Your task to perform on an android device: change text size in settings app Image 0: 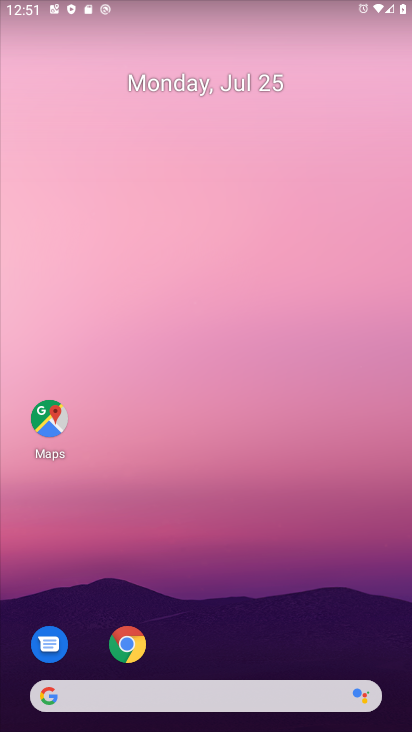
Step 0: drag from (386, 628) to (218, 122)
Your task to perform on an android device: change text size in settings app Image 1: 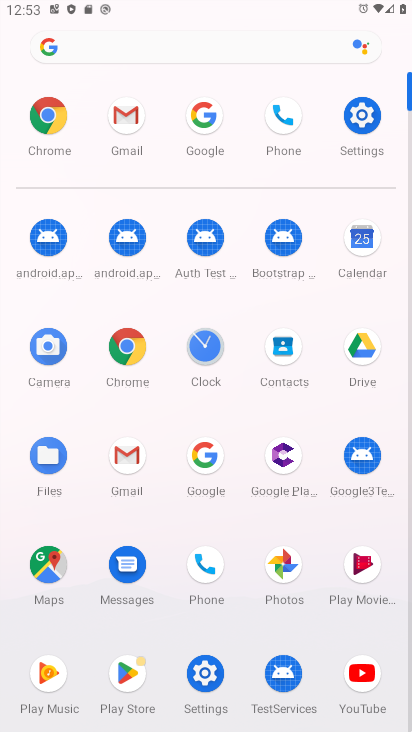
Step 1: click (192, 667)
Your task to perform on an android device: change text size in settings app Image 2: 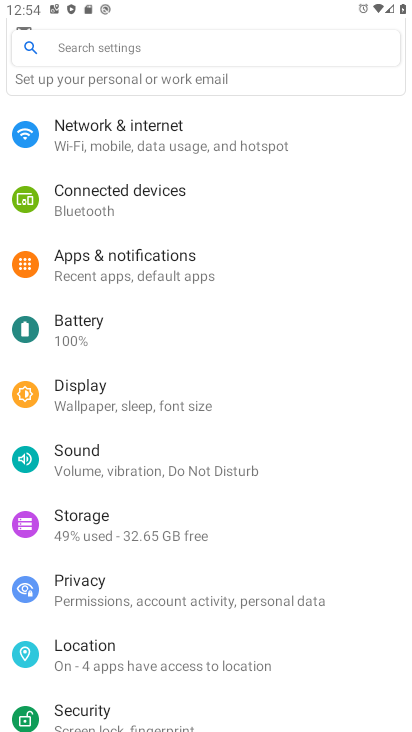
Step 2: click (116, 393)
Your task to perform on an android device: change text size in settings app Image 3: 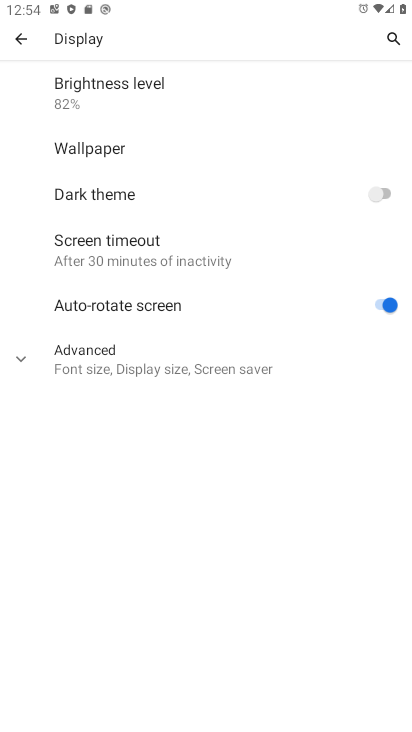
Step 3: click (116, 370)
Your task to perform on an android device: change text size in settings app Image 4: 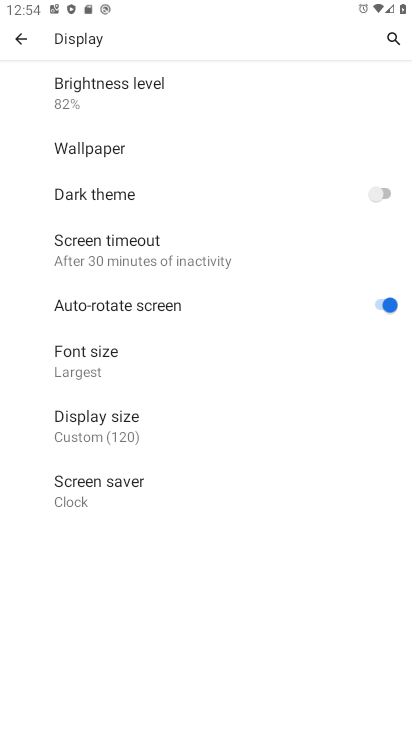
Step 4: click (118, 369)
Your task to perform on an android device: change text size in settings app Image 5: 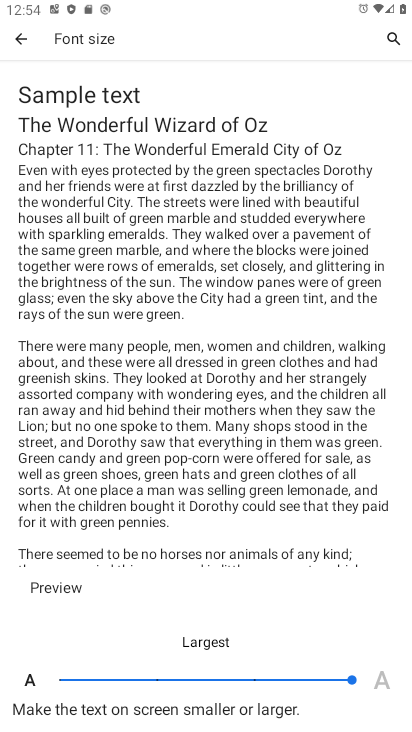
Step 5: click (358, 687)
Your task to perform on an android device: change text size in settings app Image 6: 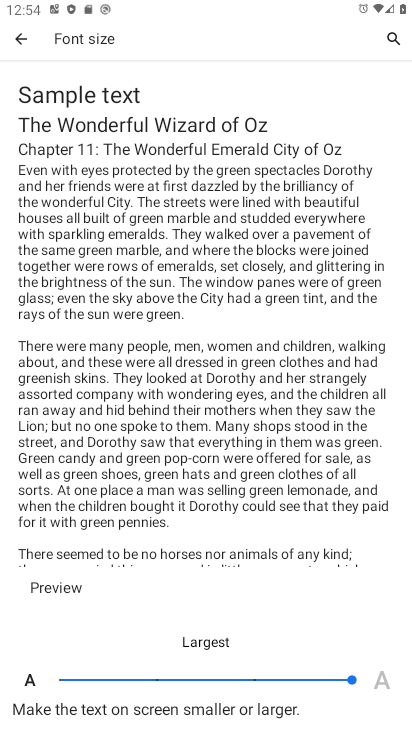
Step 6: task complete